Your task to perform on an android device: Go to eBay Image 0: 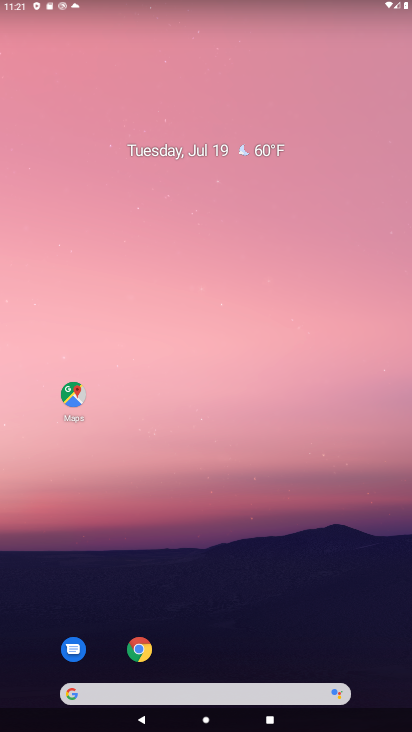
Step 0: click (135, 658)
Your task to perform on an android device: Go to eBay Image 1: 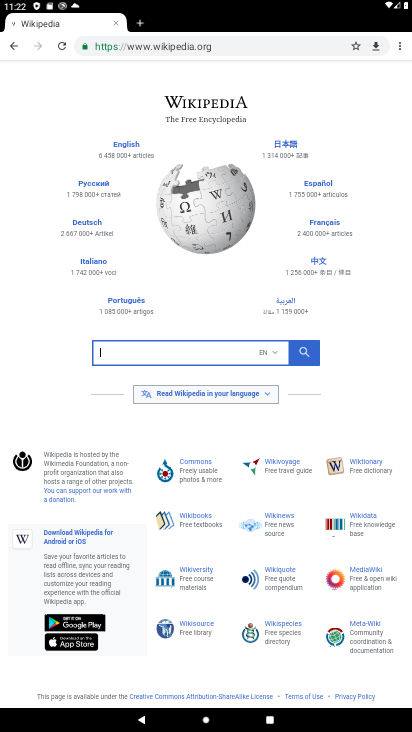
Step 1: click (179, 44)
Your task to perform on an android device: Go to eBay Image 2: 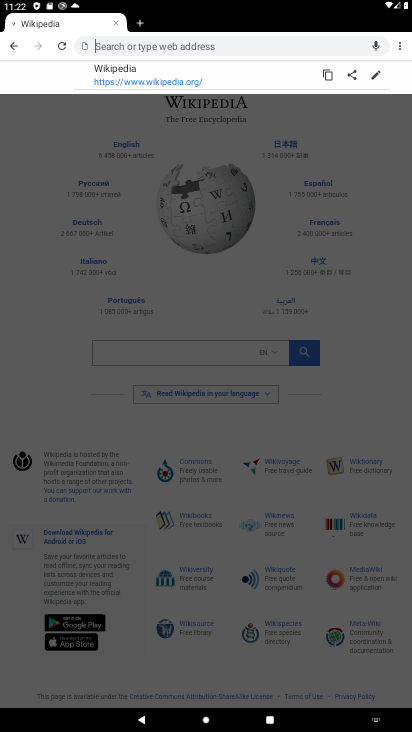
Step 2: type "ebay"
Your task to perform on an android device: Go to eBay Image 3: 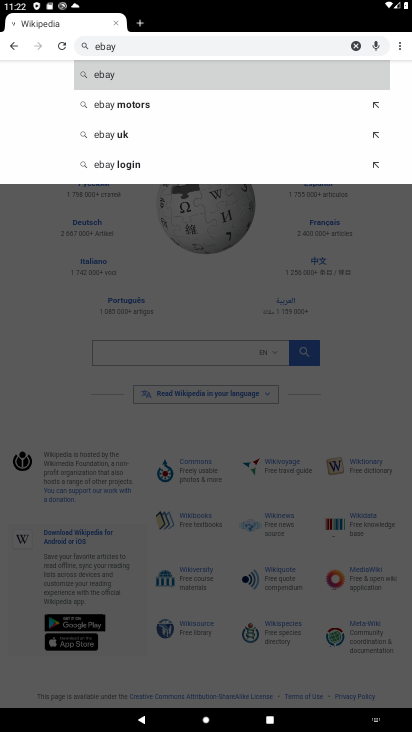
Step 3: click (137, 74)
Your task to perform on an android device: Go to eBay Image 4: 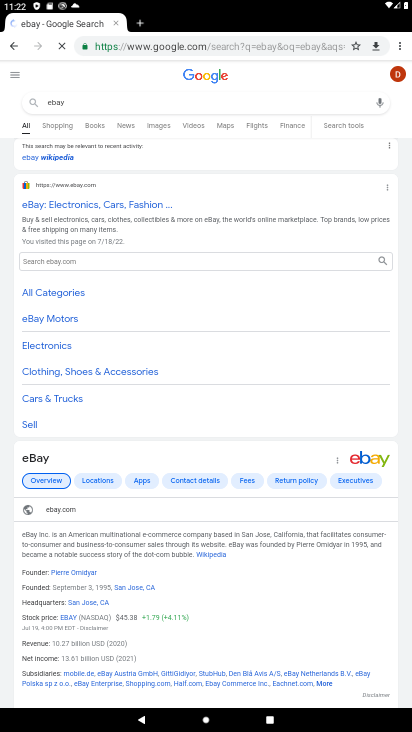
Step 4: click (99, 203)
Your task to perform on an android device: Go to eBay Image 5: 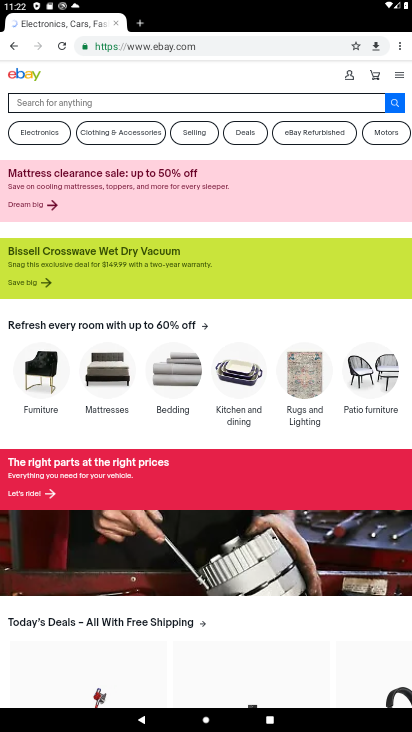
Step 5: task complete